Your task to perform on an android device: Open my contact list Image 0: 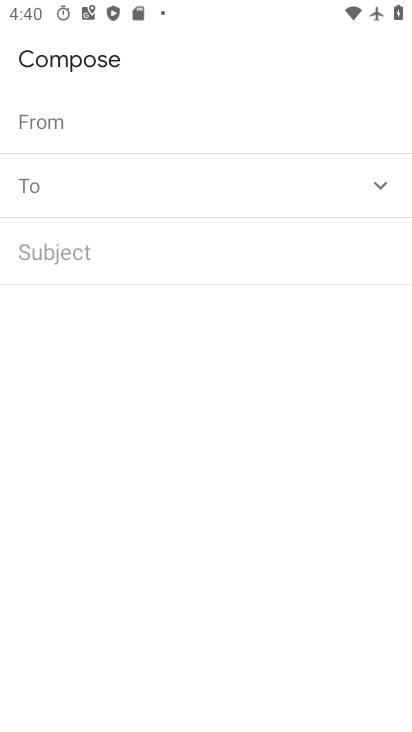
Step 0: drag from (312, 687) to (169, 188)
Your task to perform on an android device: Open my contact list Image 1: 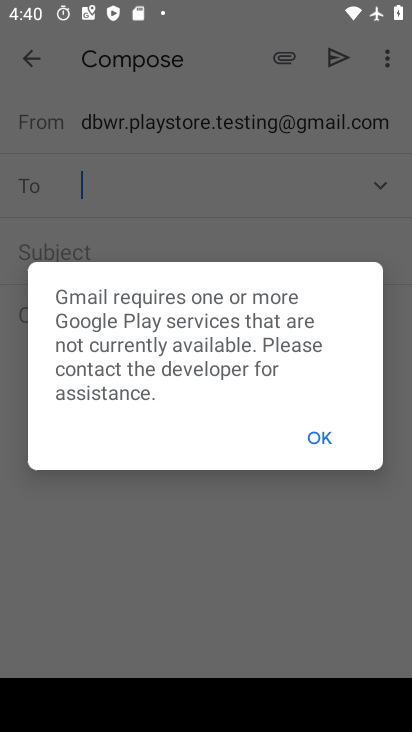
Step 1: click (319, 445)
Your task to perform on an android device: Open my contact list Image 2: 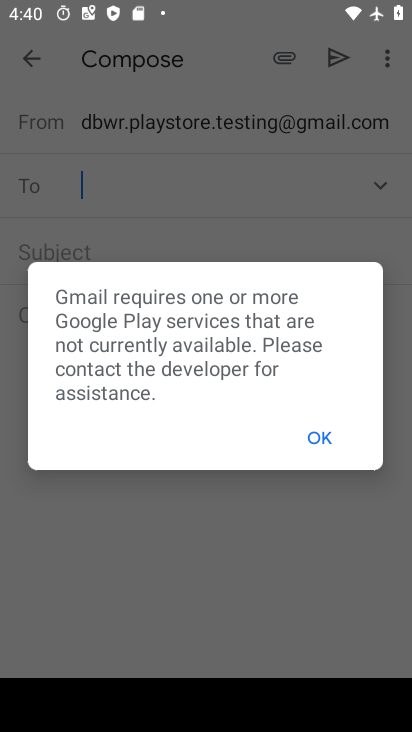
Step 2: click (319, 443)
Your task to perform on an android device: Open my contact list Image 3: 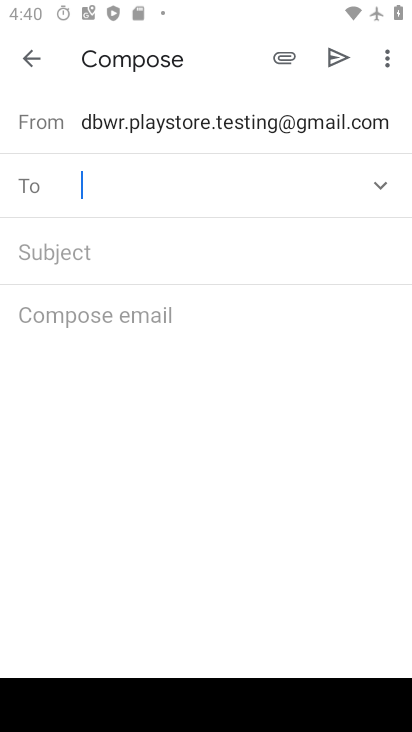
Step 3: click (319, 441)
Your task to perform on an android device: Open my contact list Image 4: 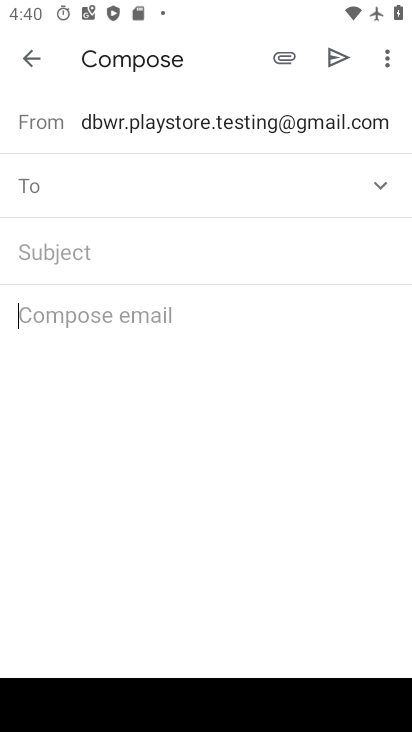
Step 4: click (319, 438)
Your task to perform on an android device: Open my contact list Image 5: 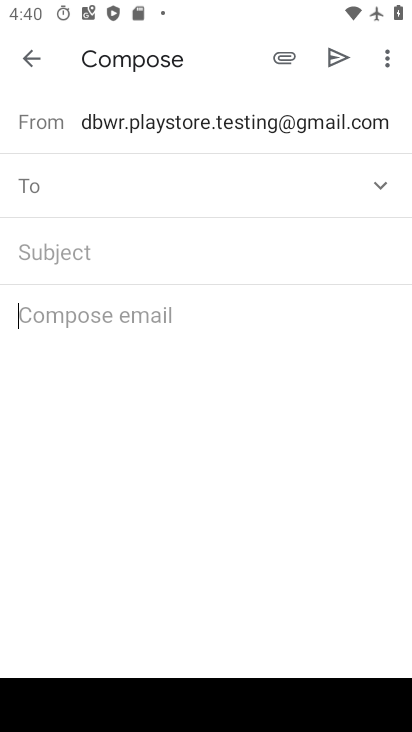
Step 5: click (319, 438)
Your task to perform on an android device: Open my contact list Image 6: 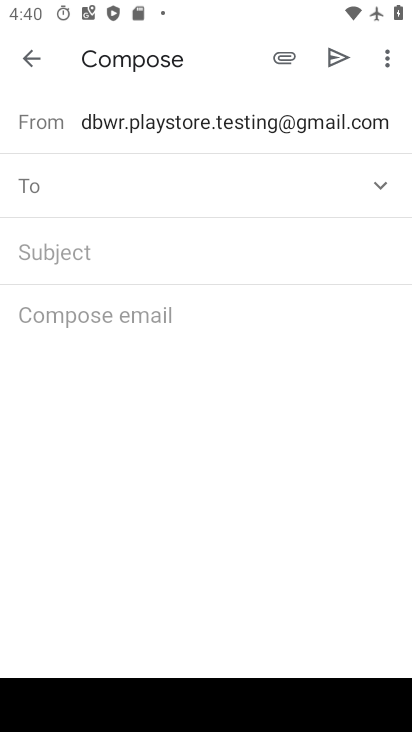
Step 6: click (31, 69)
Your task to perform on an android device: Open my contact list Image 7: 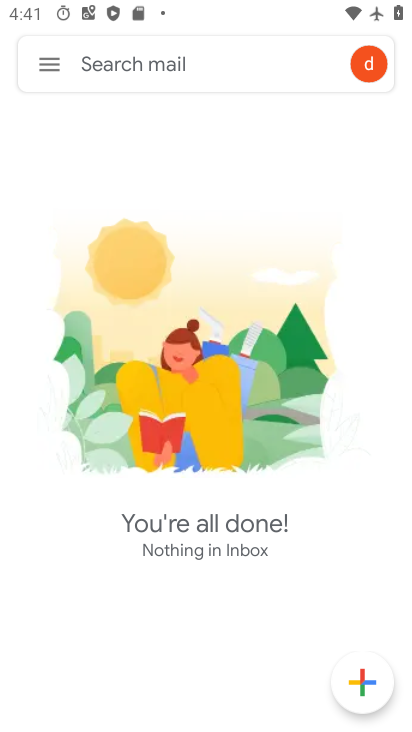
Step 7: press back button
Your task to perform on an android device: Open my contact list Image 8: 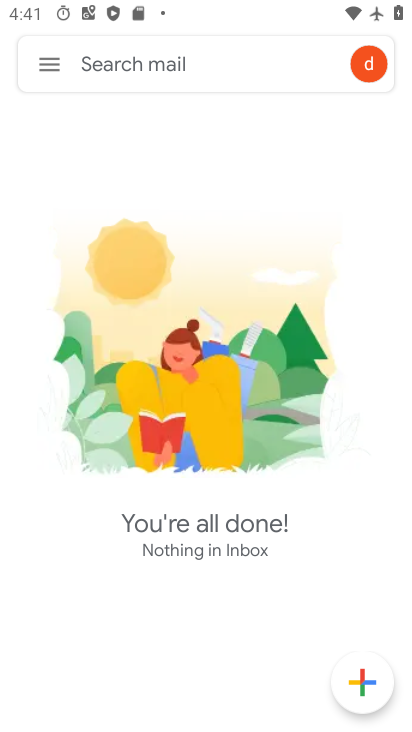
Step 8: press back button
Your task to perform on an android device: Open my contact list Image 9: 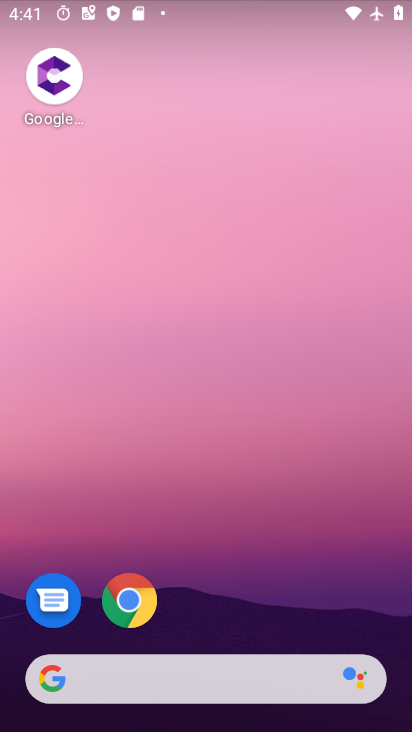
Step 9: press back button
Your task to perform on an android device: Open my contact list Image 10: 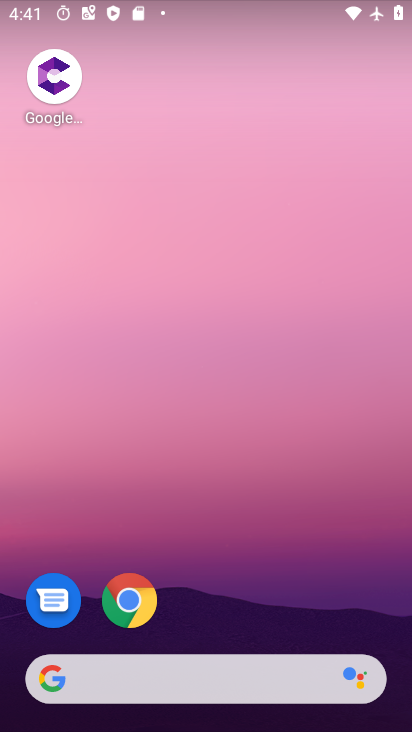
Step 10: drag from (271, 656) to (226, 167)
Your task to perform on an android device: Open my contact list Image 11: 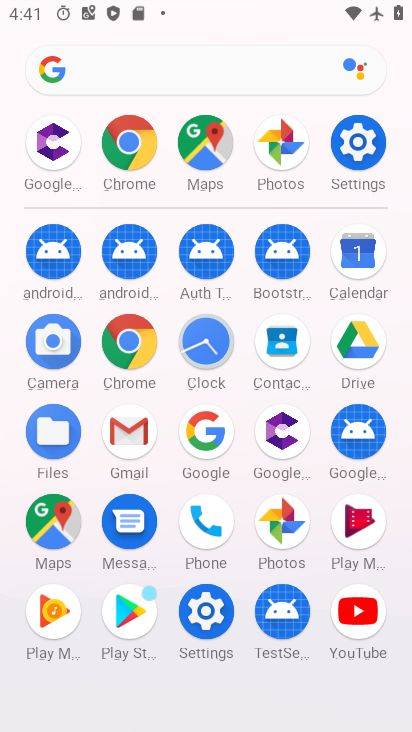
Step 11: click (280, 339)
Your task to perform on an android device: Open my contact list Image 12: 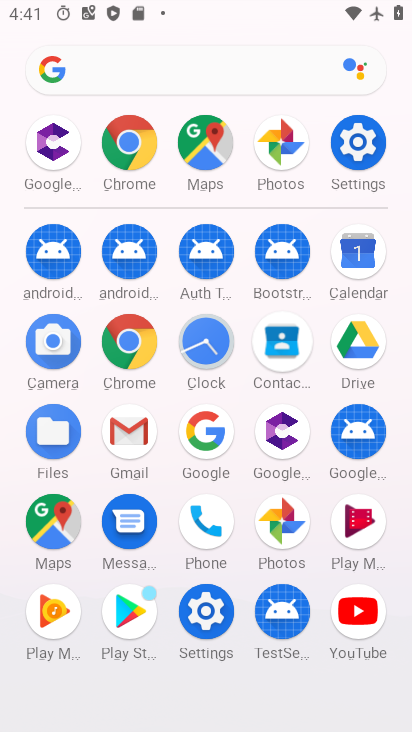
Step 12: click (280, 339)
Your task to perform on an android device: Open my contact list Image 13: 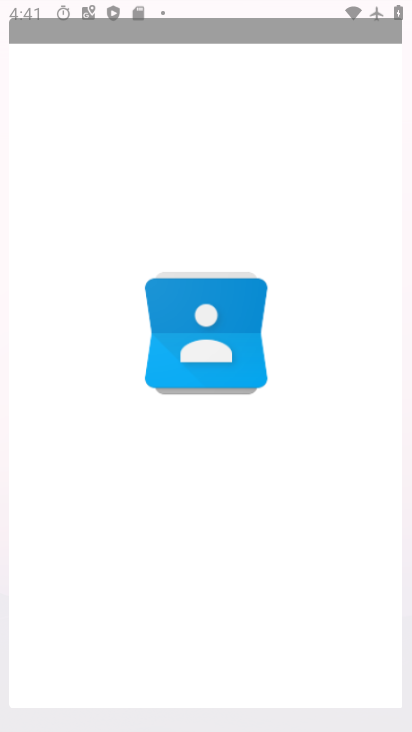
Step 13: click (281, 338)
Your task to perform on an android device: Open my contact list Image 14: 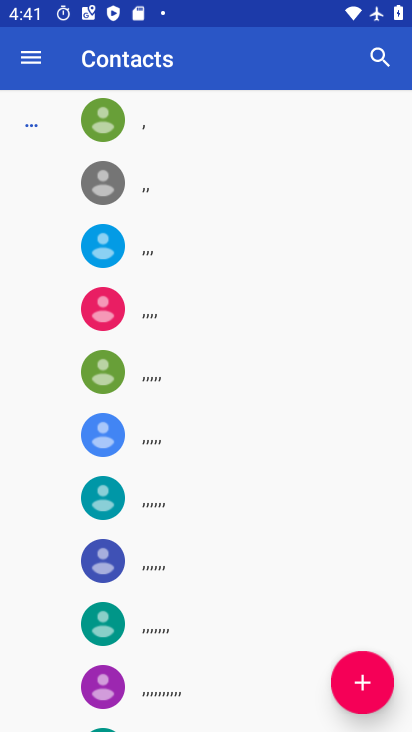
Step 14: task complete